Your task to perform on an android device: turn on javascript in the chrome app Image 0: 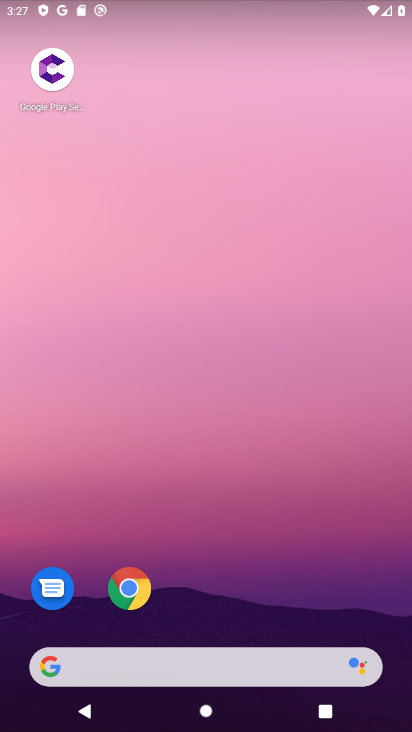
Step 0: click (149, 601)
Your task to perform on an android device: turn on javascript in the chrome app Image 1: 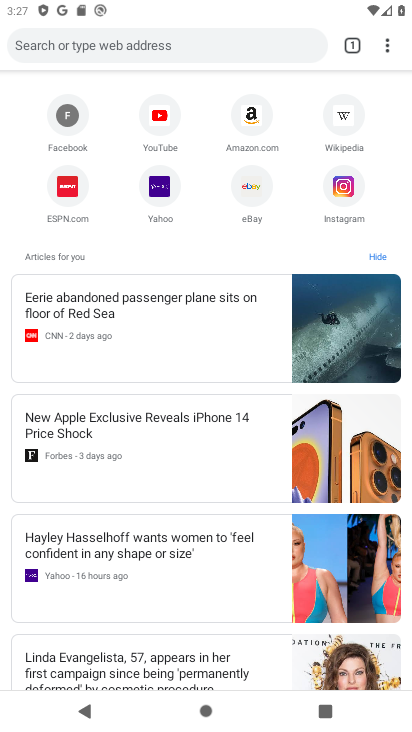
Step 1: click (395, 63)
Your task to perform on an android device: turn on javascript in the chrome app Image 2: 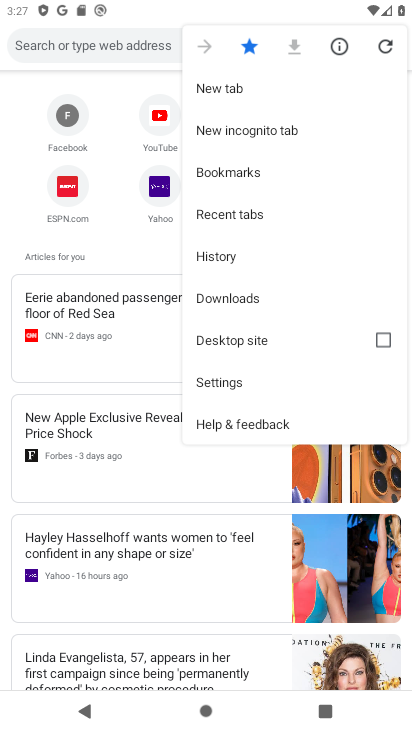
Step 2: click (229, 375)
Your task to perform on an android device: turn on javascript in the chrome app Image 3: 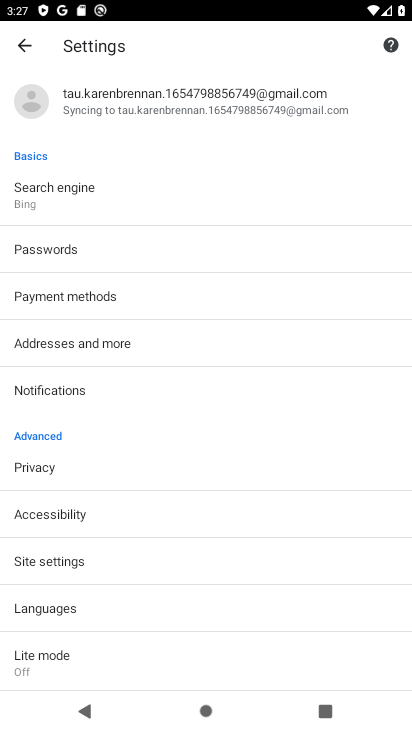
Step 3: click (66, 563)
Your task to perform on an android device: turn on javascript in the chrome app Image 4: 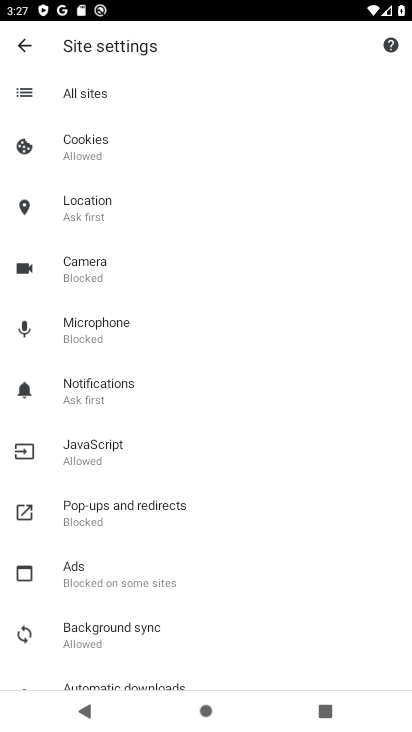
Step 4: click (85, 463)
Your task to perform on an android device: turn on javascript in the chrome app Image 5: 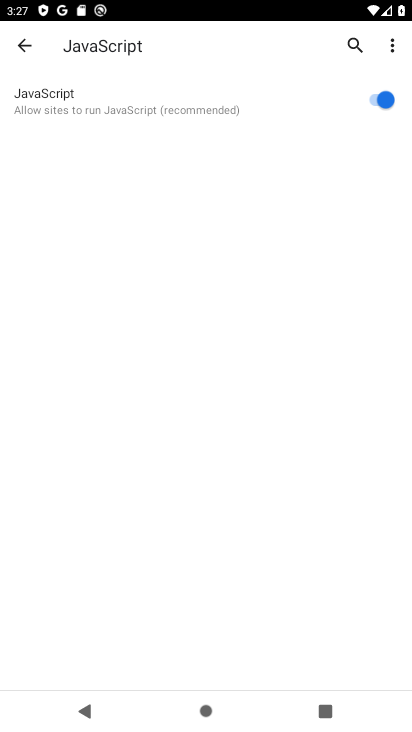
Step 5: task complete